Your task to perform on an android device: Open location settings Image 0: 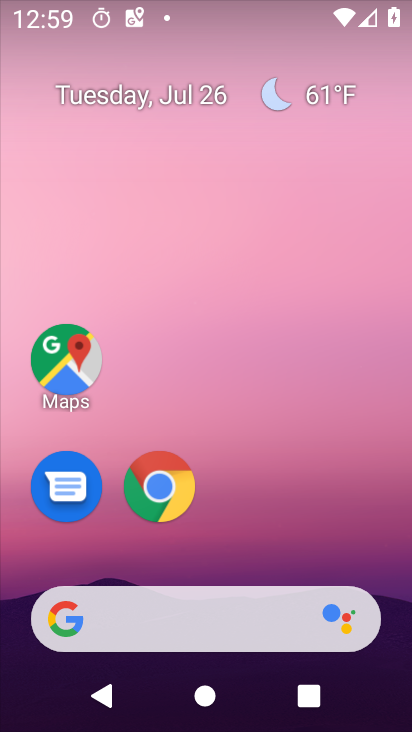
Step 0: drag from (387, 547) to (386, 83)
Your task to perform on an android device: Open location settings Image 1: 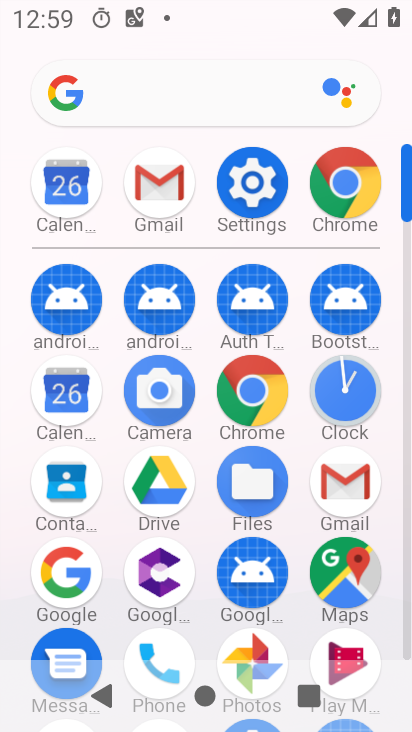
Step 1: click (259, 186)
Your task to perform on an android device: Open location settings Image 2: 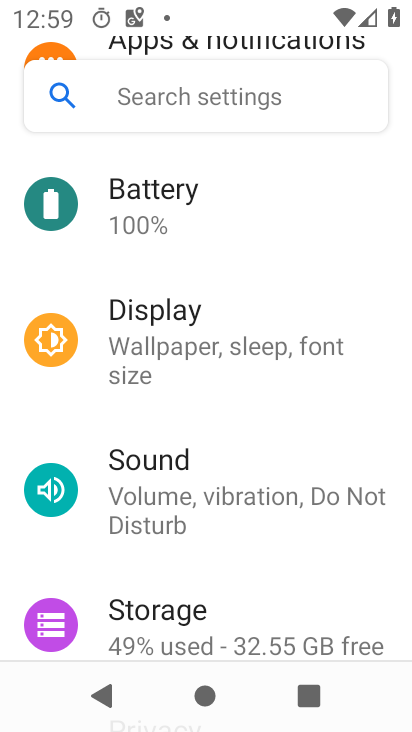
Step 2: drag from (373, 247) to (369, 370)
Your task to perform on an android device: Open location settings Image 3: 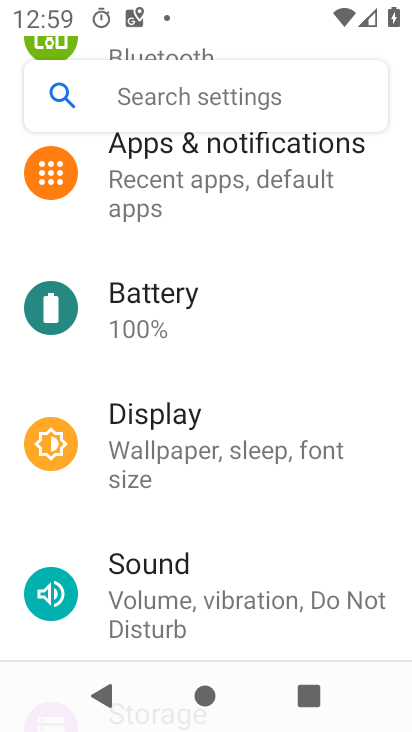
Step 3: drag from (367, 212) to (372, 371)
Your task to perform on an android device: Open location settings Image 4: 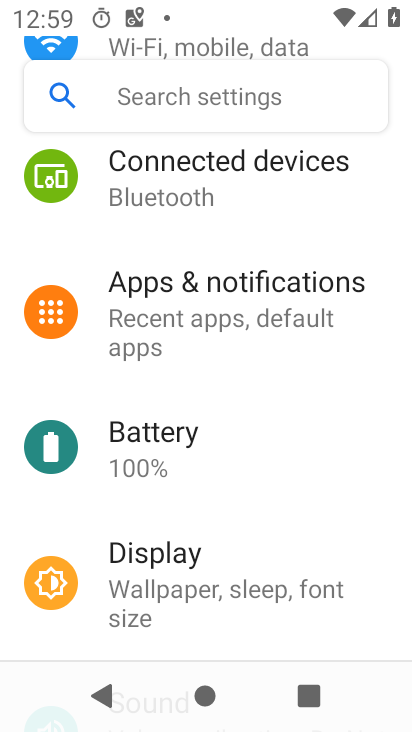
Step 4: drag from (363, 204) to (387, 349)
Your task to perform on an android device: Open location settings Image 5: 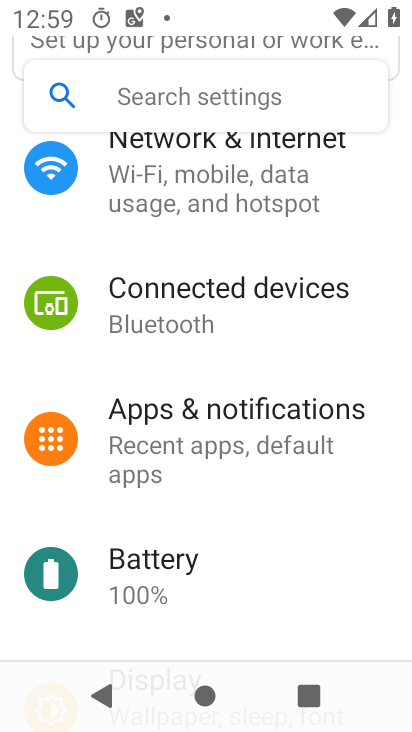
Step 5: drag from (368, 184) to (368, 327)
Your task to perform on an android device: Open location settings Image 6: 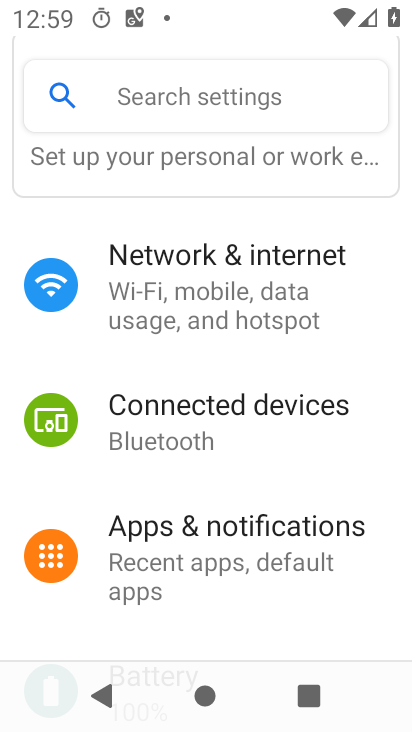
Step 6: drag from (376, 476) to (376, 373)
Your task to perform on an android device: Open location settings Image 7: 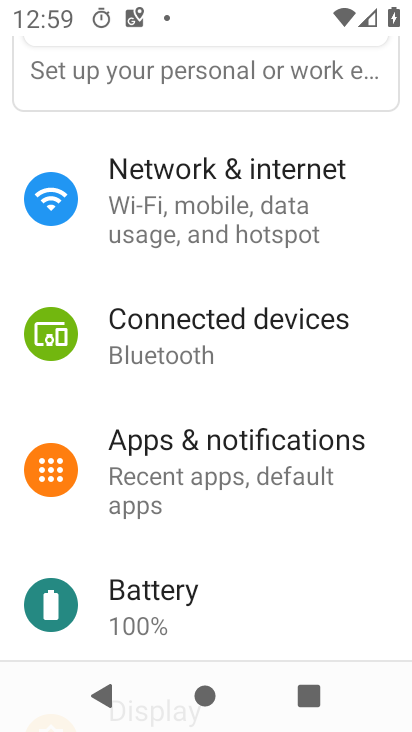
Step 7: drag from (376, 517) to (375, 390)
Your task to perform on an android device: Open location settings Image 8: 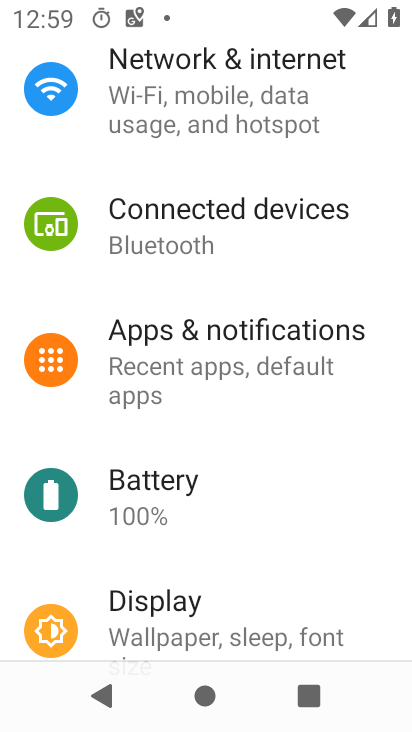
Step 8: drag from (357, 530) to (349, 306)
Your task to perform on an android device: Open location settings Image 9: 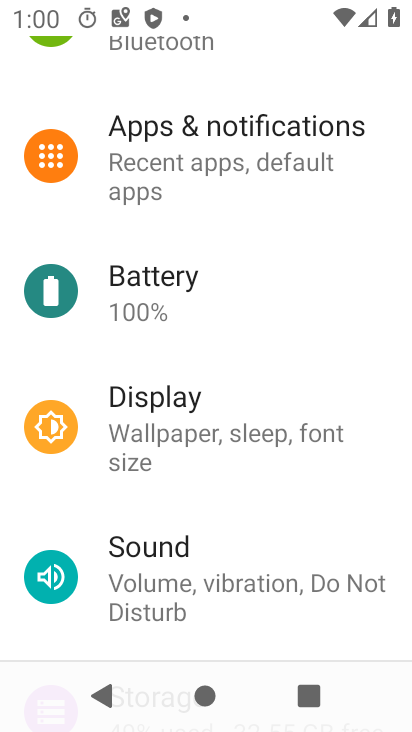
Step 9: drag from (332, 541) to (321, 315)
Your task to perform on an android device: Open location settings Image 10: 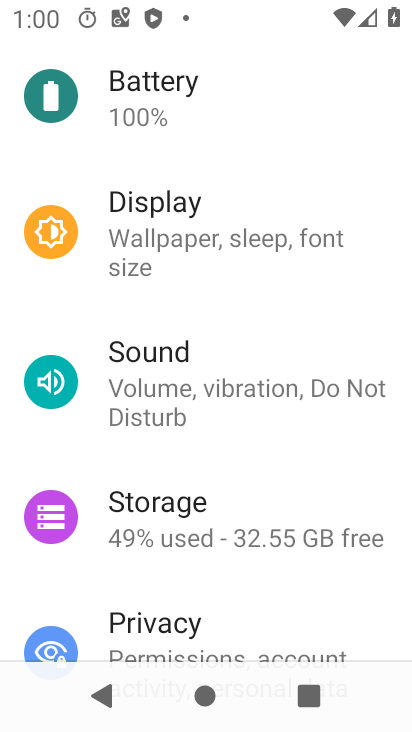
Step 10: drag from (346, 576) to (330, 332)
Your task to perform on an android device: Open location settings Image 11: 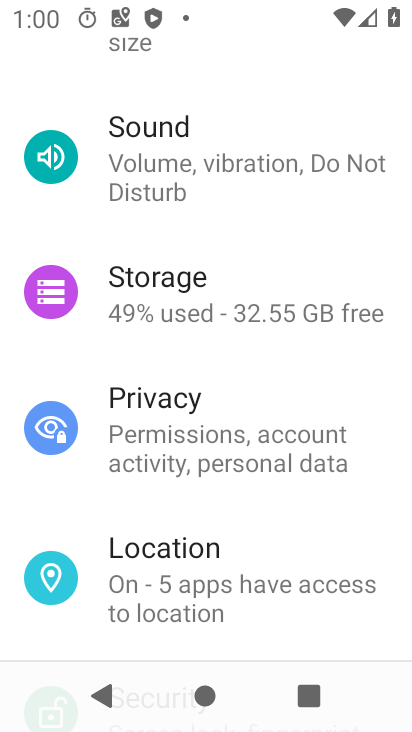
Step 11: drag from (339, 551) to (324, 385)
Your task to perform on an android device: Open location settings Image 12: 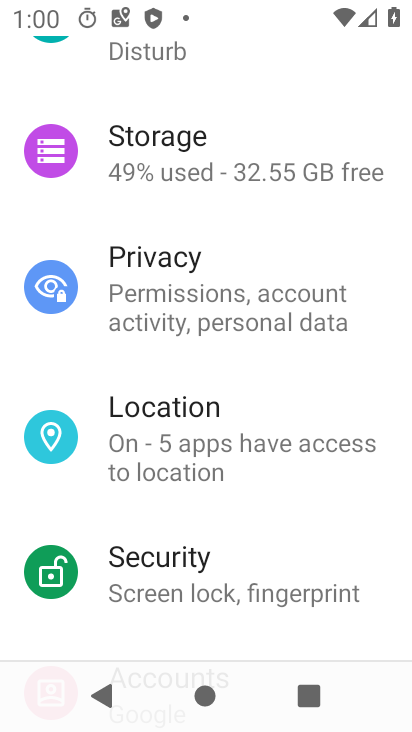
Step 12: drag from (336, 534) to (334, 368)
Your task to perform on an android device: Open location settings Image 13: 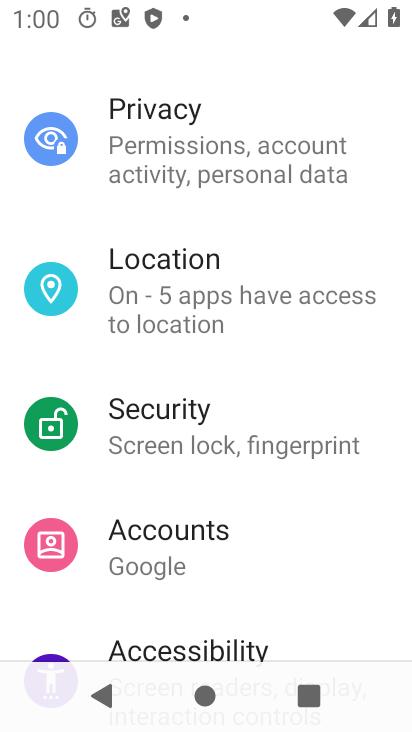
Step 13: drag from (335, 575) to (343, 373)
Your task to perform on an android device: Open location settings Image 14: 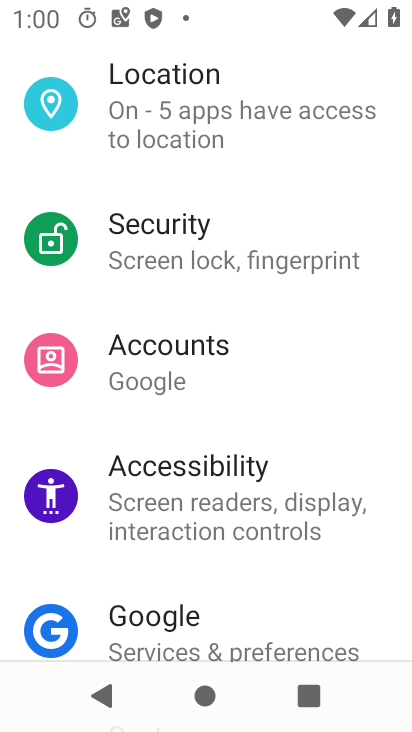
Step 14: drag from (358, 564) to (375, 245)
Your task to perform on an android device: Open location settings Image 15: 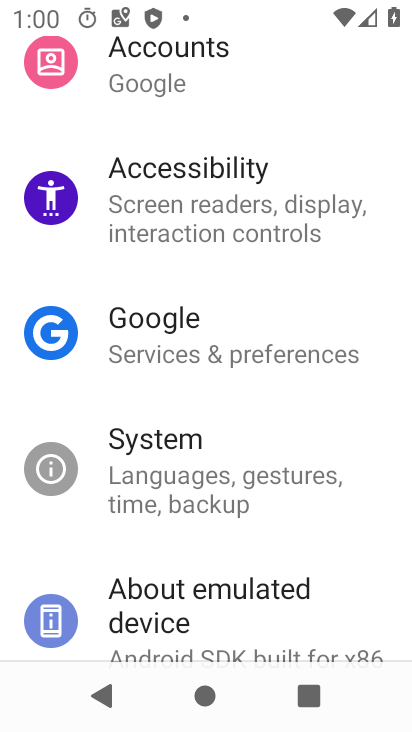
Step 15: drag from (348, 561) to (349, 393)
Your task to perform on an android device: Open location settings Image 16: 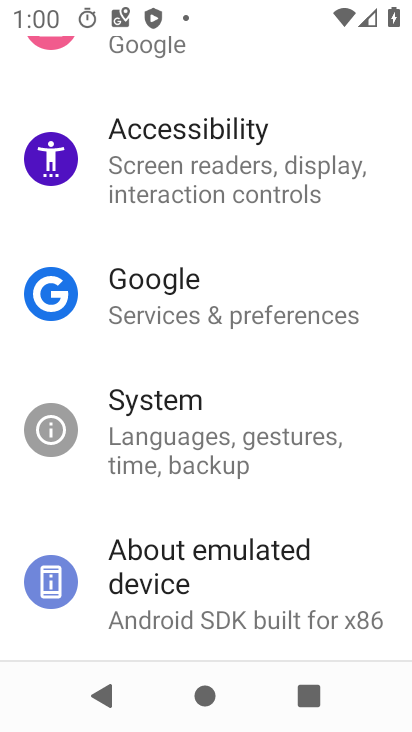
Step 16: drag from (354, 562) to (360, 399)
Your task to perform on an android device: Open location settings Image 17: 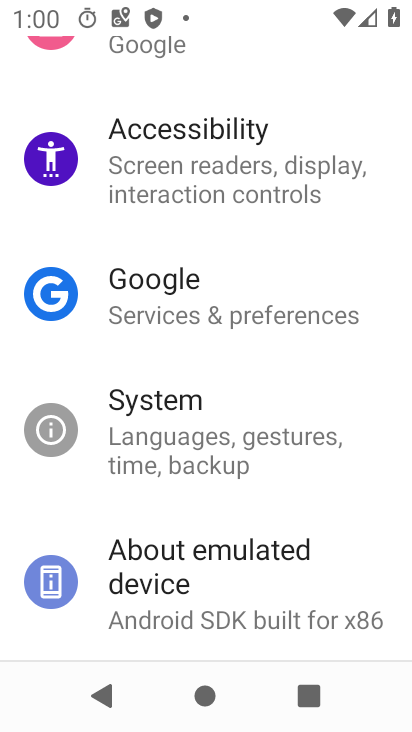
Step 17: drag from (367, 253) to (372, 382)
Your task to perform on an android device: Open location settings Image 18: 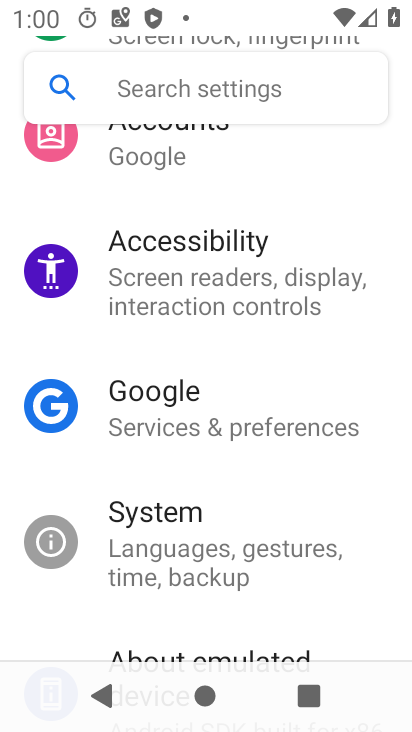
Step 18: drag from (365, 219) to (365, 427)
Your task to perform on an android device: Open location settings Image 19: 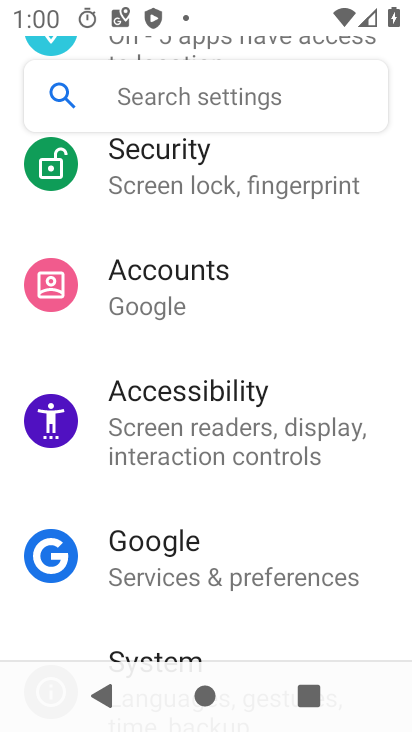
Step 19: drag from (365, 231) to (363, 388)
Your task to perform on an android device: Open location settings Image 20: 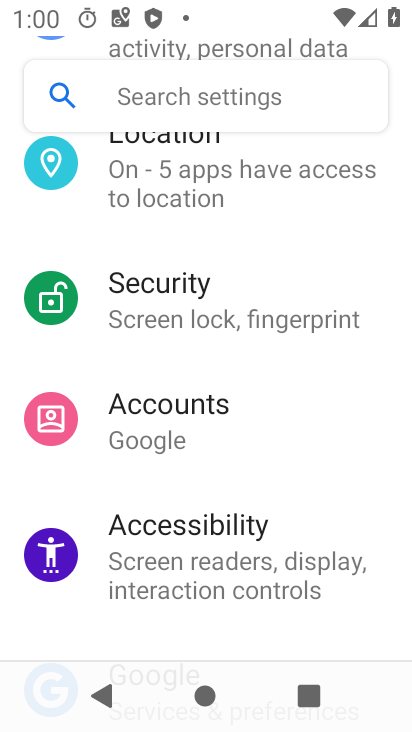
Step 20: drag from (349, 567) to (348, 372)
Your task to perform on an android device: Open location settings Image 21: 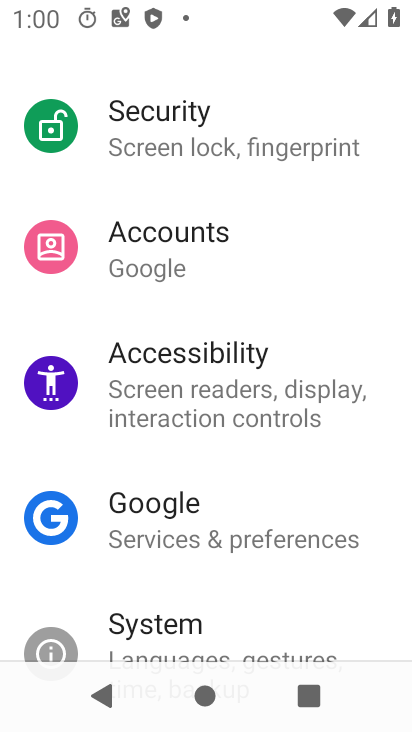
Step 21: drag from (336, 598) to (335, 458)
Your task to perform on an android device: Open location settings Image 22: 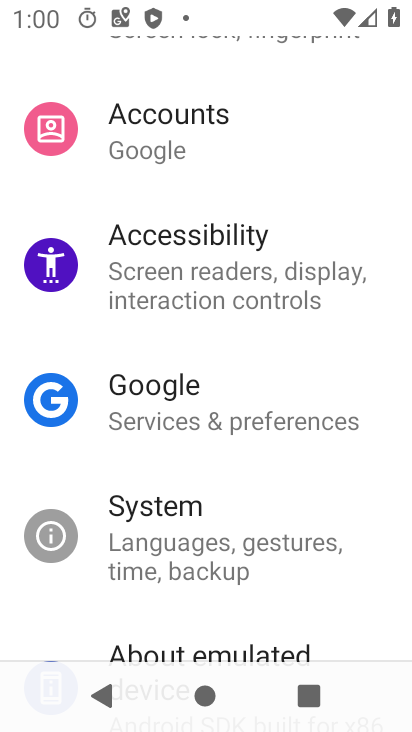
Step 22: drag from (339, 614) to (353, 360)
Your task to perform on an android device: Open location settings Image 23: 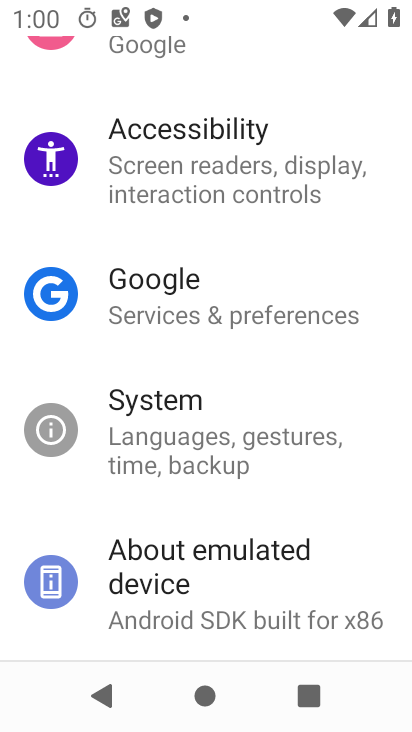
Step 23: drag from (351, 225) to (353, 408)
Your task to perform on an android device: Open location settings Image 24: 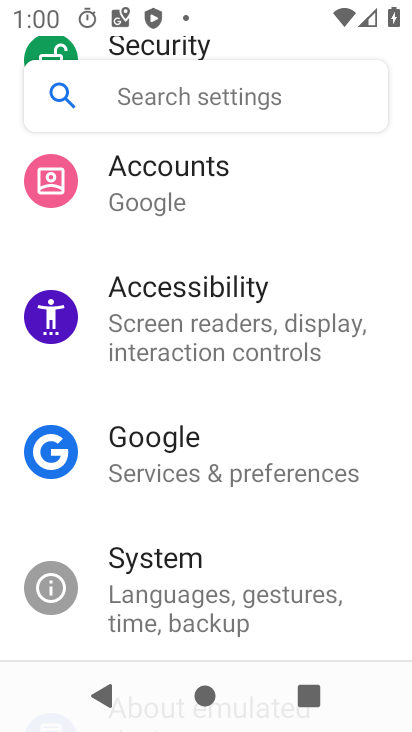
Step 24: drag from (365, 281) to (365, 430)
Your task to perform on an android device: Open location settings Image 25: 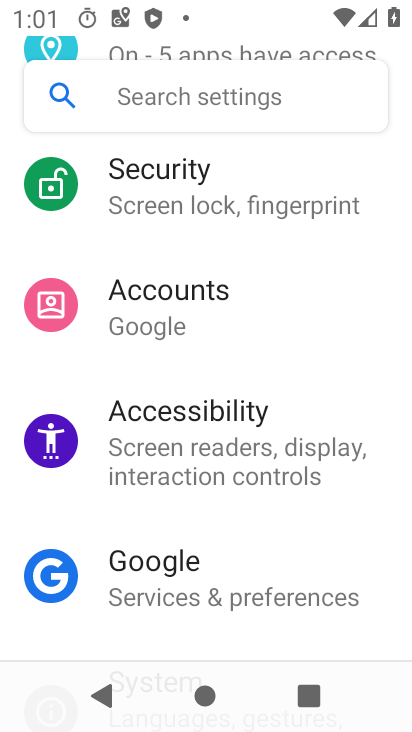
Step 25: drag from (358, 263) to (359, 446)
Your task to perform on an android device: Open location settings Image 26: 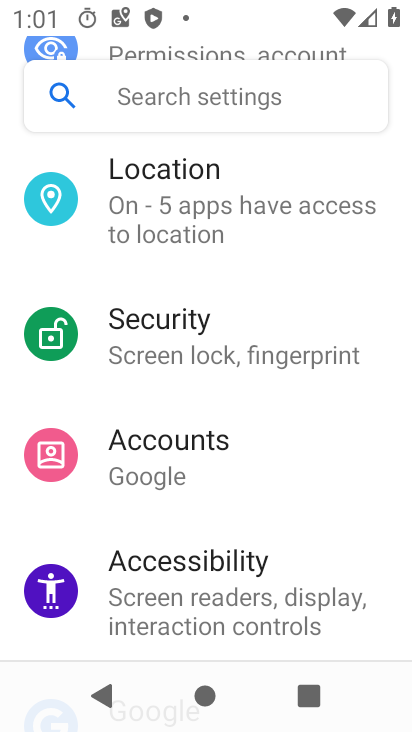
Step 26: drag from (357, 343) to (357, 415)
Your task to perform on an android device: Open location settings Image 27: 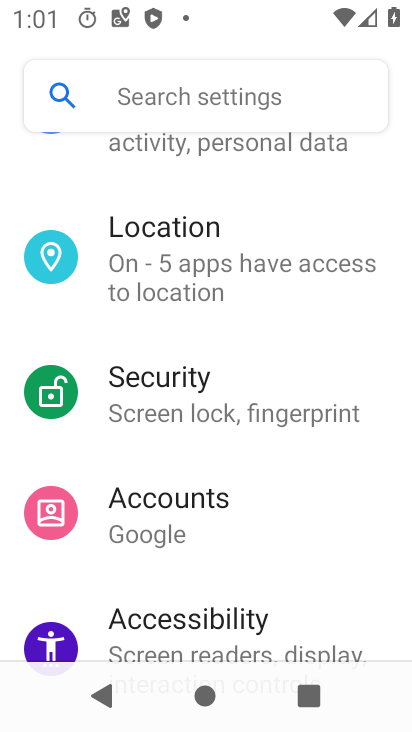
Step 27: drag from (356, 207) to (356, 347)
Your task to perform on an android device: Open location settings Image 28: 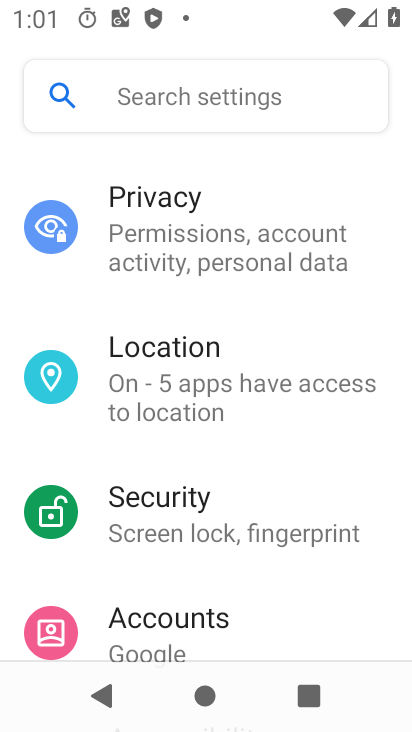
Step 28: drag from (359, 203) to (366, 349)
Your task to perform on an android device: Open location settings Image 29: 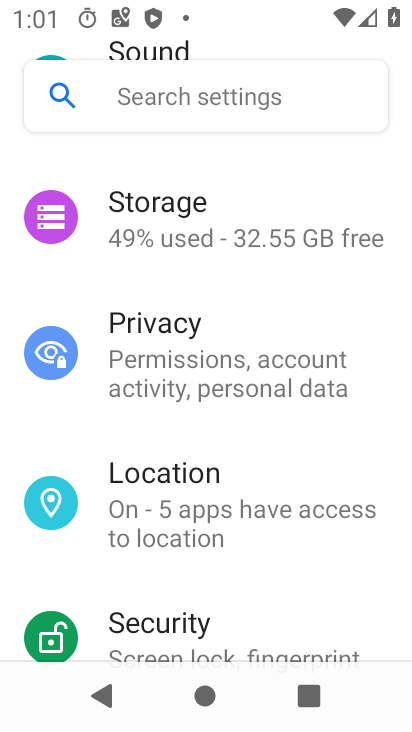
Step 29: drag from (371, 185) to (371, 328)
Your task to perform on an android device: Open location settings Image 30: 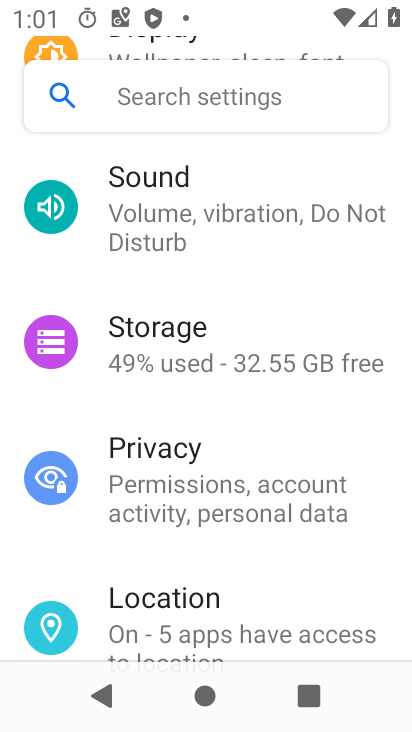
Step 30: drag from (358, 174) to (347, 317)
Your task to perform on an android device: Open location settings Image 31: 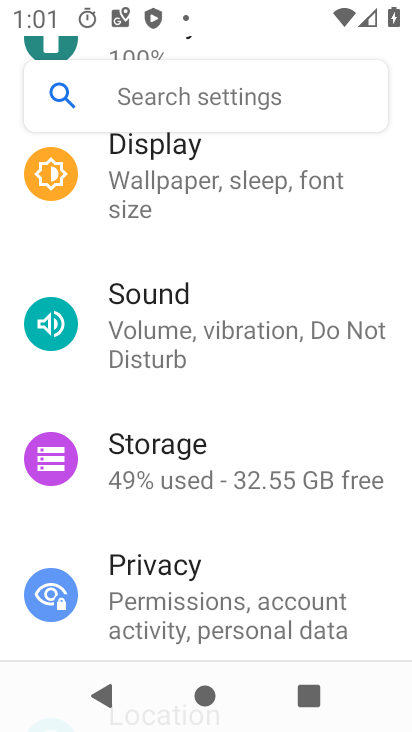
Step 31: drag from (363, 168) to (363, 333)
Your task to perform on an android device: Open location settings Image 32: 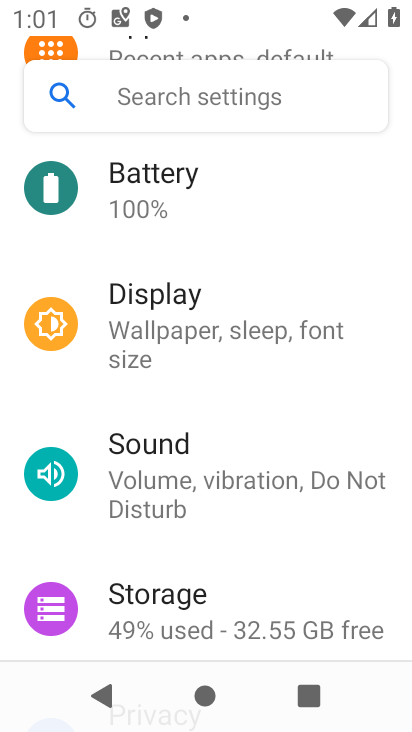
Step 32: drag from (348, 166) to (342, 372)
Your task to perform on an android device: Open location settings Image 33: 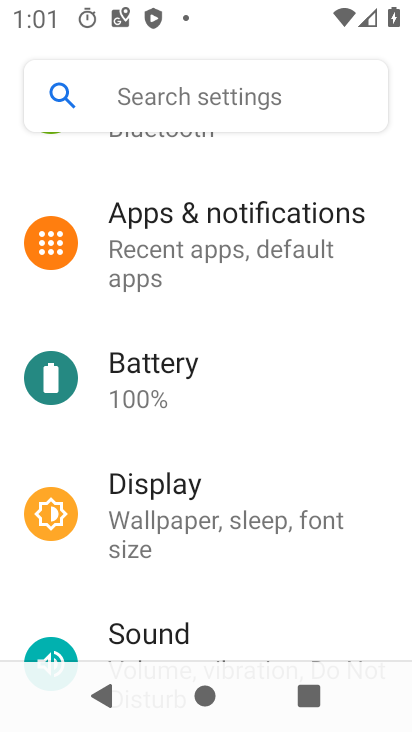
Step 33: drag from (342, 284) to (344, 431)
Your task to perform on an android device: Open location settings Image 34: 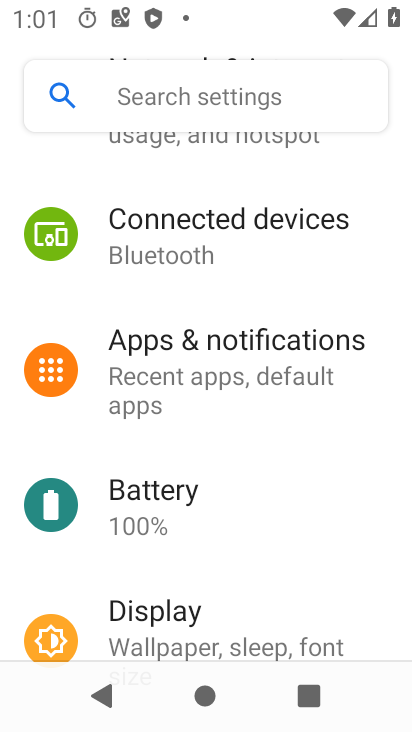
Step 34: drag from (338, 543) to (342, 367)
Your task to perform on an android device: Open location settings Image 35: 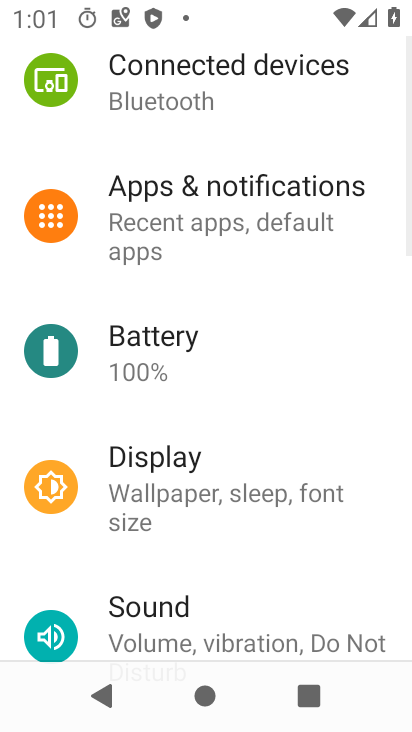
Step 35: drag from (345, 547) to (348, 275)
Your task to perform on an android device: Open location settings Image 36: 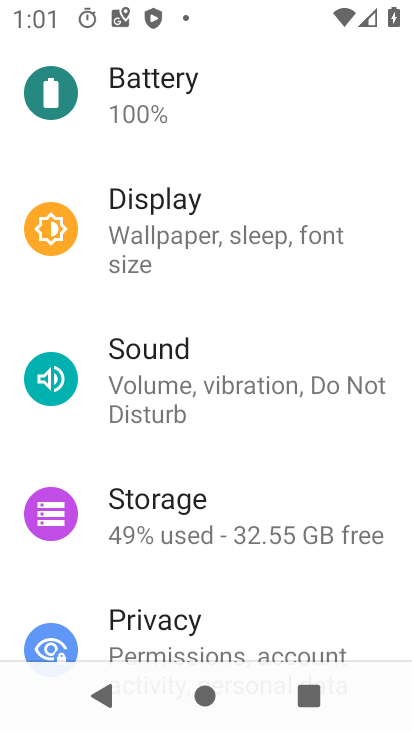
Step 36: drag from (311, 601) to (312, 369)
Your task to perform on an android device: Open location settings Image 37: 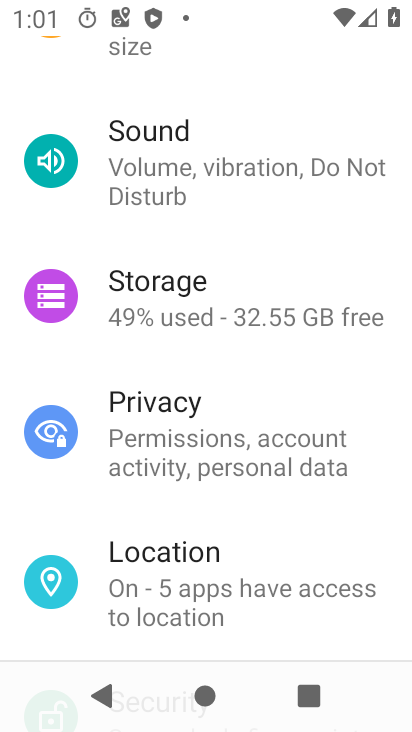
Step 37: drag from (277, 601) to (278, 438)
Your task to perform on an android device: Open location settings Image 38: 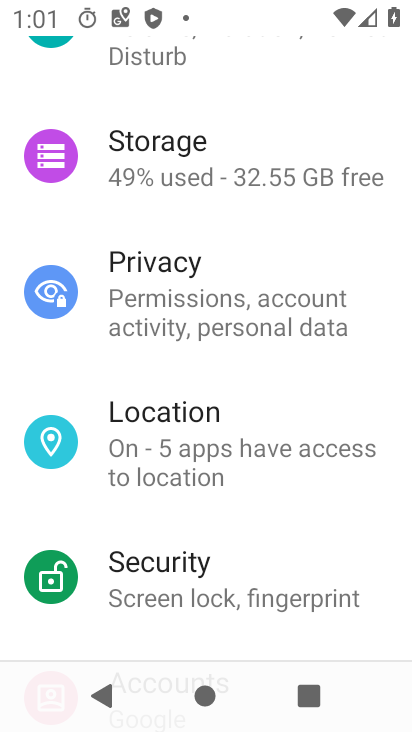
Step 38: drag from (277, 558) to (277, 419)
Your task to perform on an android device: Open location settings Image 39: 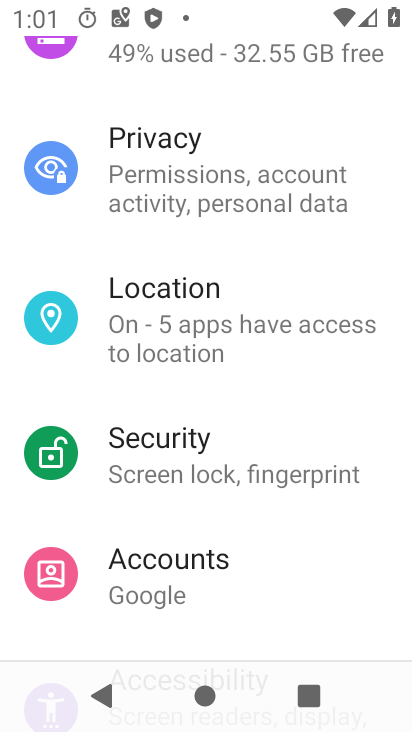
Step 39: click (259, 321)
Your task to perform on an android device: Open location settings Image 40: 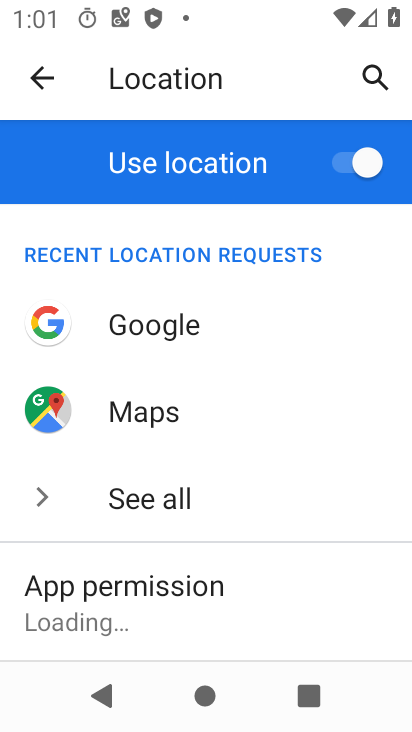
Step 40: drag from (287, 520) to (287, 376)
Your task to perform on an android device: Open location settings Image 41: 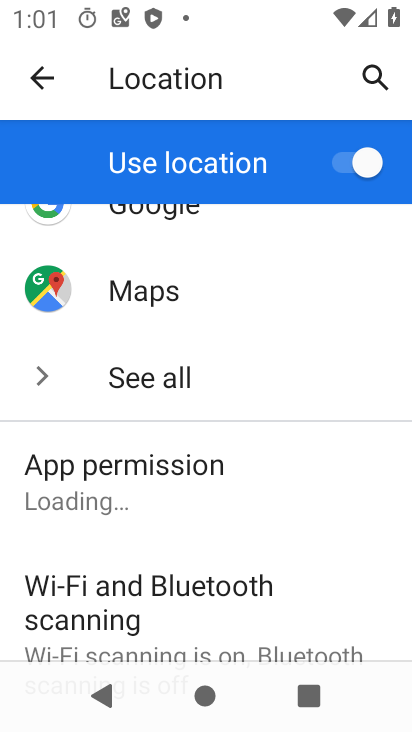
Step 41: drag from (296, 531) to (303, 383)
Your task to perform on an android device: Open location settings Image 42: 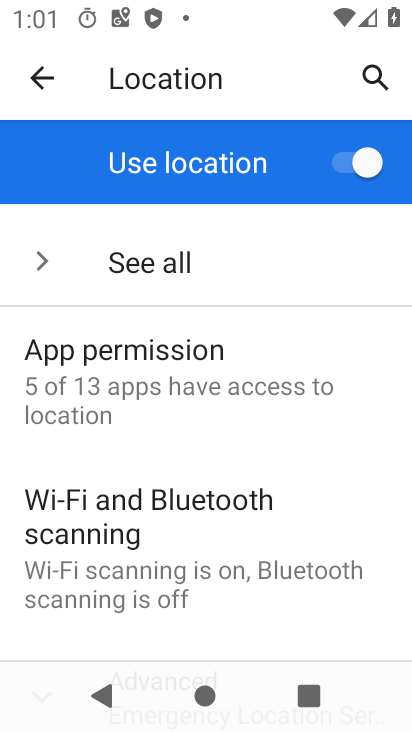
Step 42: drag from (277, 509) to (283, 392)
Your task to perform on an android device: Open location settings Image 43: 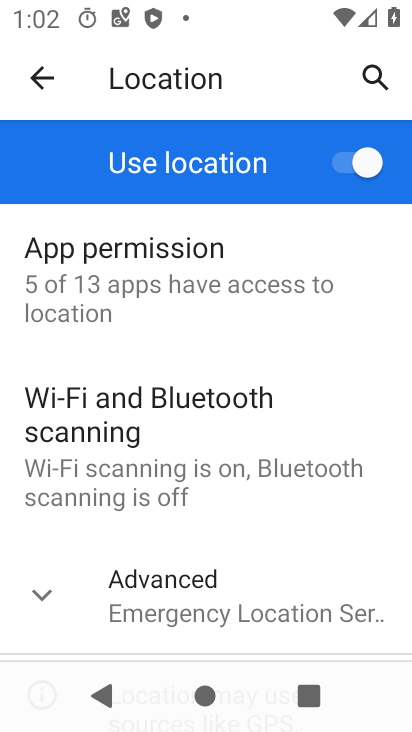
Step 43: drag from (293, 539) to (291, 410)
Your task to perform on an android device: Open location settings Image 44: 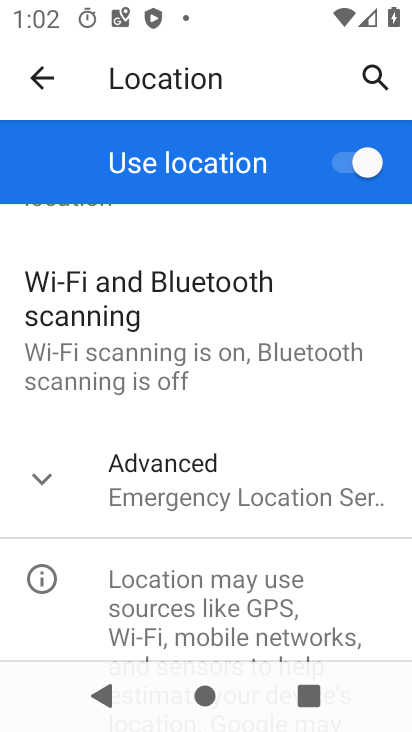
Step 44: drag from (300, 565) to (300, 478)
Your task to perform on an android device: Open location settings Image 45: 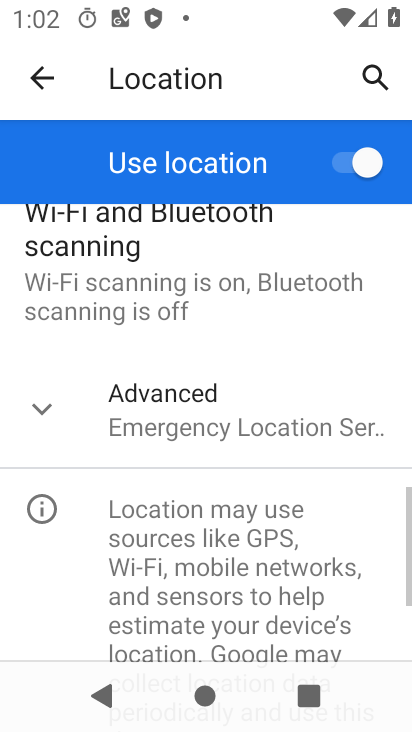
Step 45: click (277, 460)
Your task to perform on an android device: Open location settings Image 46: 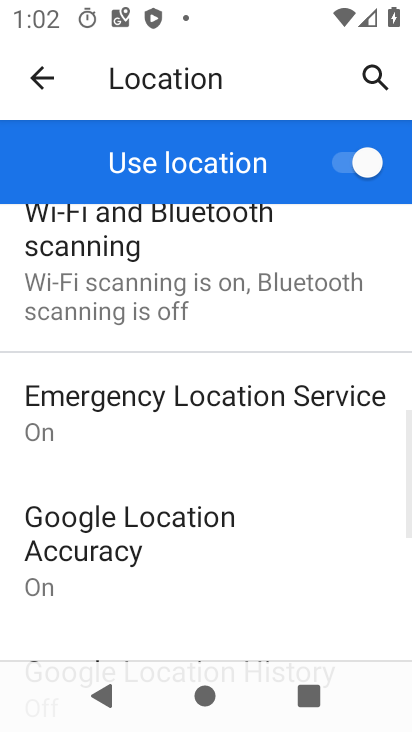
Step 46: task complete